Your task to perform on an android device: set default search engine in the chrome app Image 0: 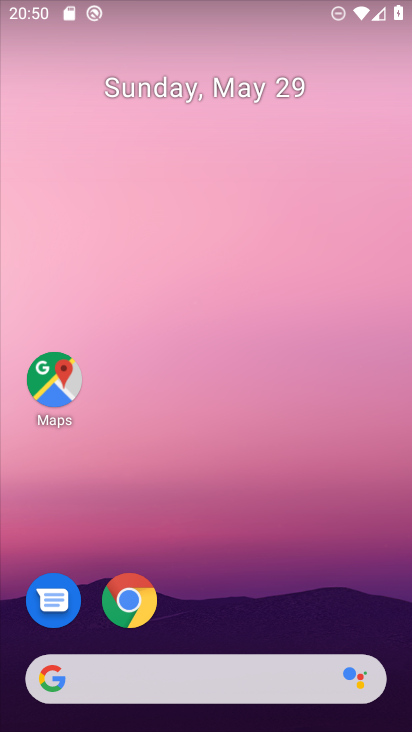
Step 0: drag from (335, 569) to (304, 168)
Your task to perform on an android device: set default search engine in the chrome app Image 1: 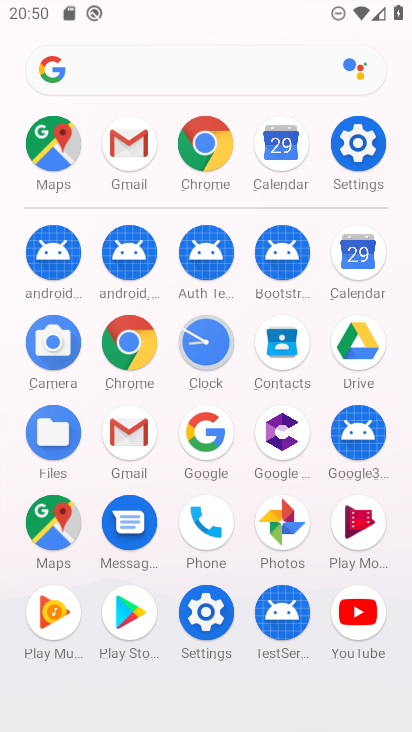
Step 1: click (136, 358)
Your task to perform on an android device: set default search engine in the chrome app Image 2: 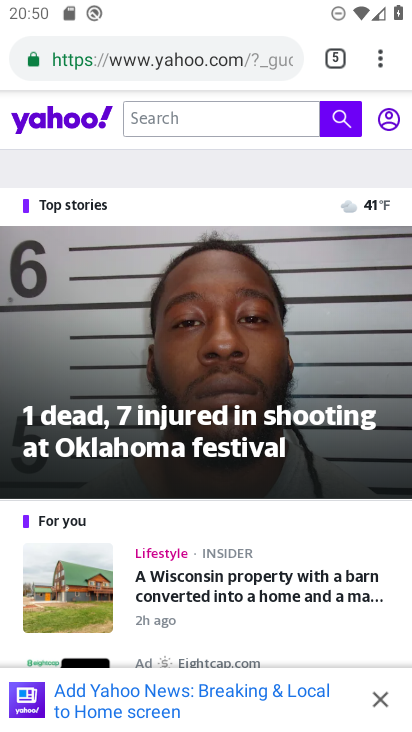
Step 2: drag from (376, 68) to (232, 617)
Your task to perform on an android device: set default search engine in the chrome app Image 3: 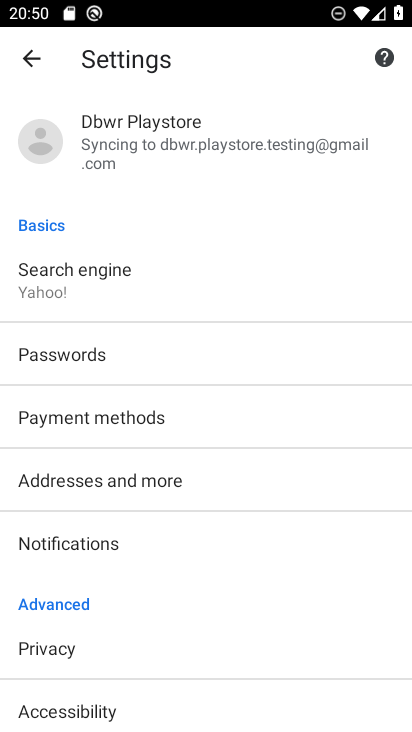
Step 3: click (155, 282)
Your task to perform on an android device: set default search engine in the chrome app Image 4: 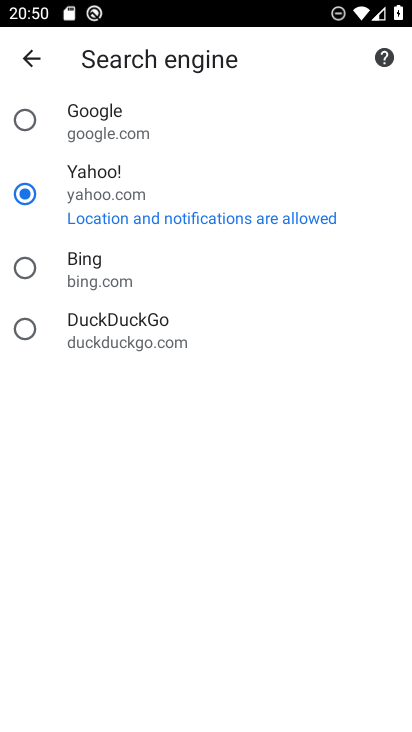
Step 4: click (93, 265)
Your task to perform on an android device: set default search engine in the chrome app Image 5: 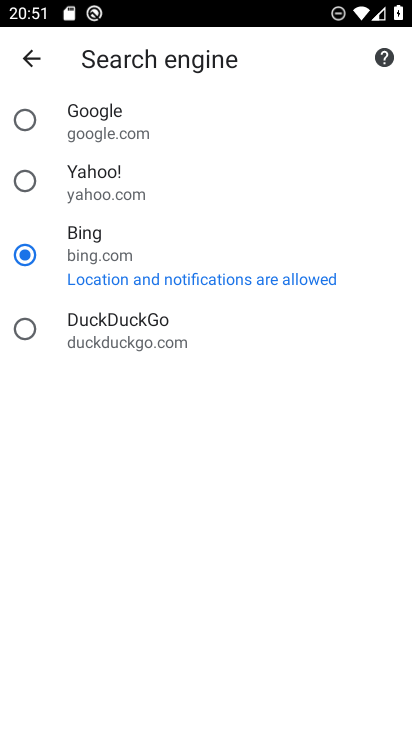
Step 5: task complete